Your task to perform on an android device: check data usage Image 0: 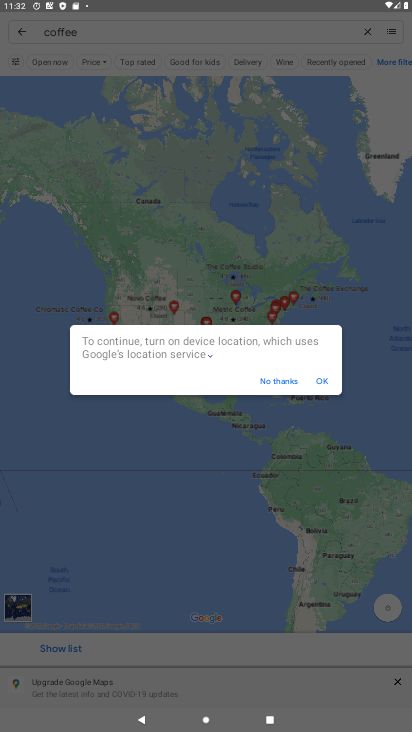
Step 0: press back button
Your task to perform on an android device: check data usage Image 1: 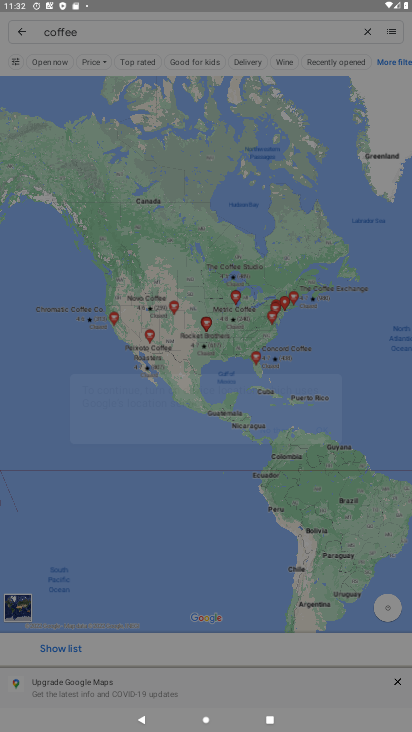
Step 1: press back button
Your task to perform on an android device: check data usage Image 2: 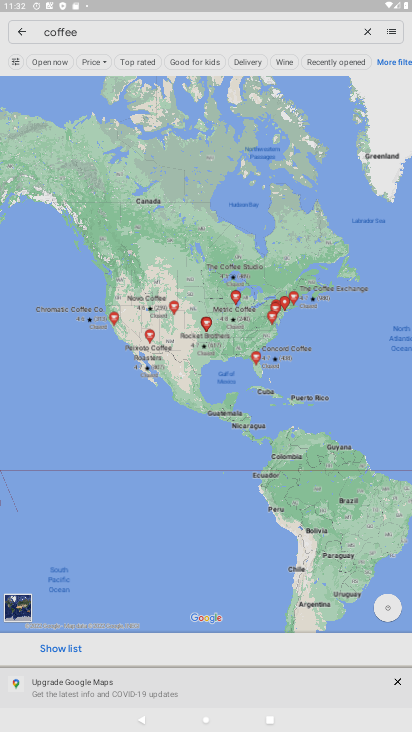
Step 2: click (277, 380)
Your task to perform on an android device: check data usage Image 3: 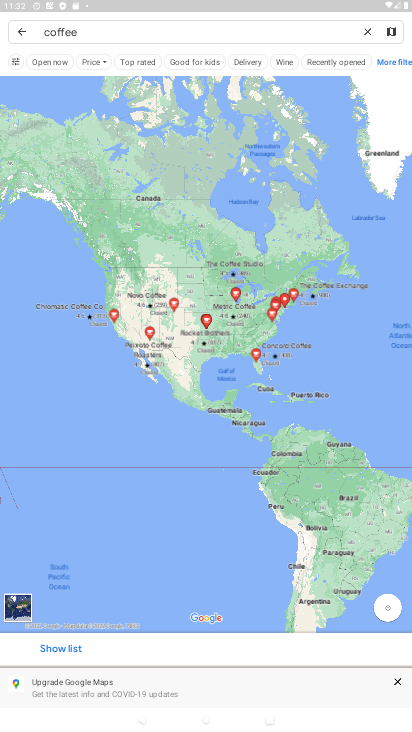
Step 3: click (278, 379)
Your task to perform on an android device: check data usage Image 4: 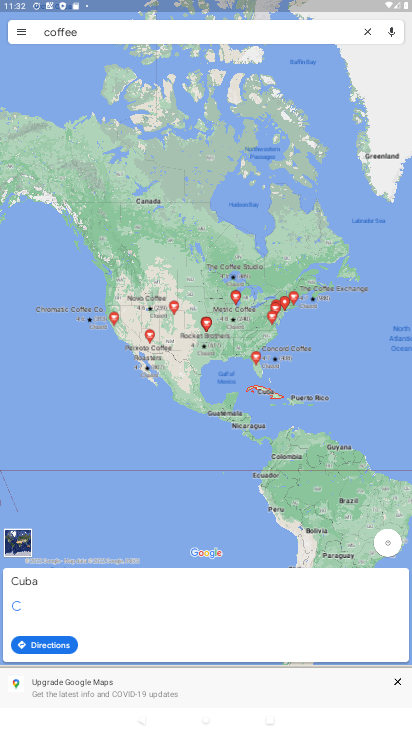
Step 4: press back button
Your task to perform on an android device: check data usage Image 5: 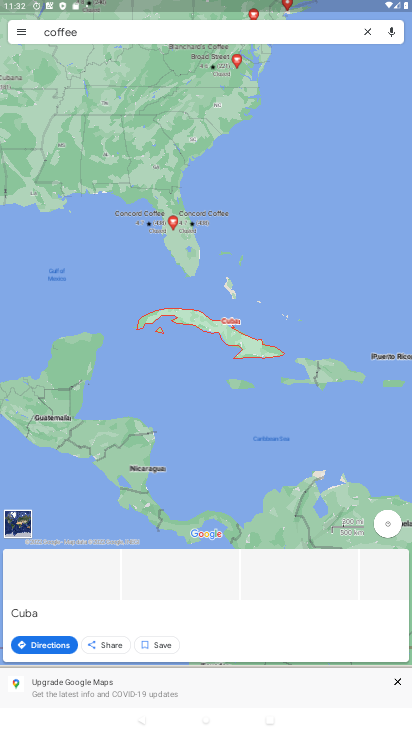
Step 5: press back button
Your task to perform on an android device: check data usage Image 6: 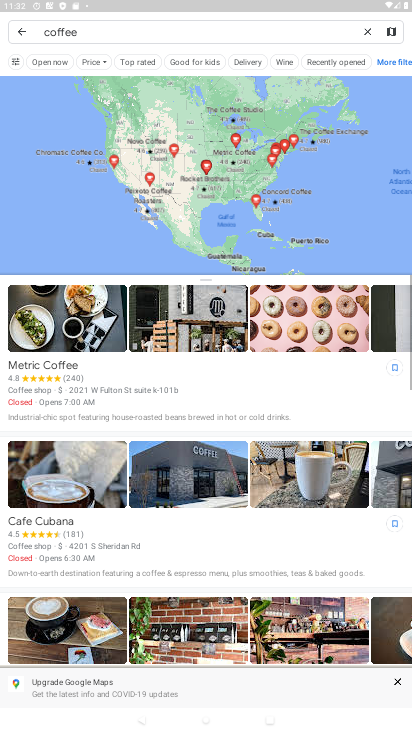
Step 6: click (19, 28)
Your task to perform on an android device: check data usage Image 7: 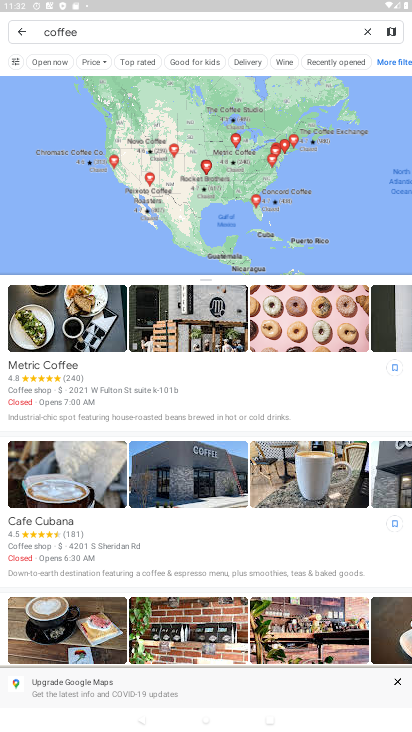
Step 7: click (22, 25)
Your task to perform on an android device: check data usage Image 8: 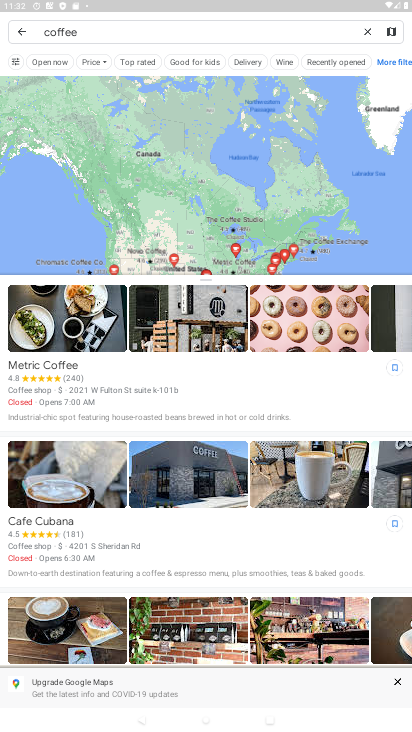
Step 8: click (27, 26)
Your task to perform on an android device: check data usage Image 9: 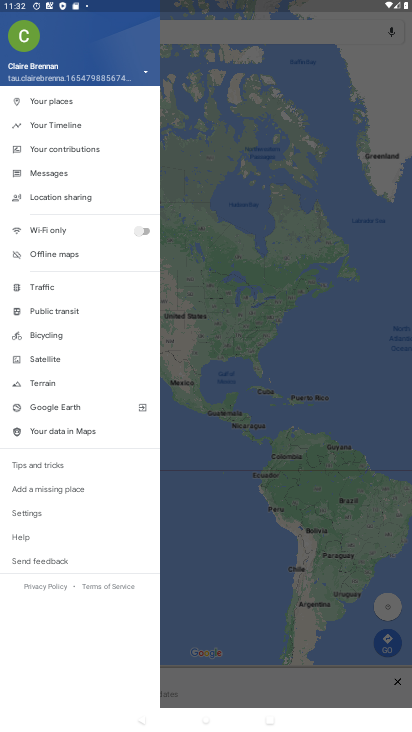
Step 9: click (272, 224)
Your task to perform on an android device: check data usage Image 10: 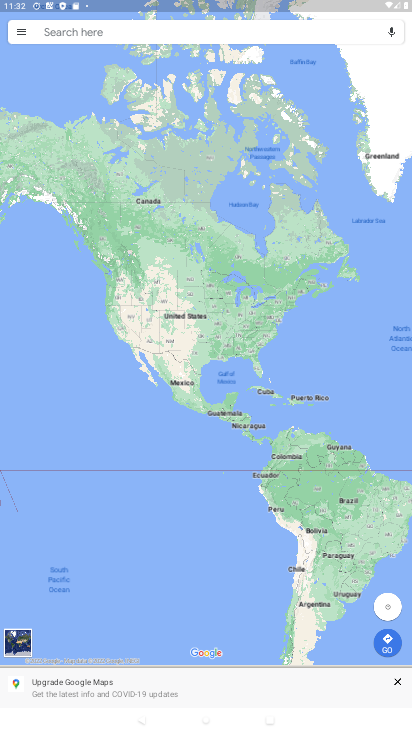
Step 10: press back button
Your task to perform on an android device: check data usage Image 11: 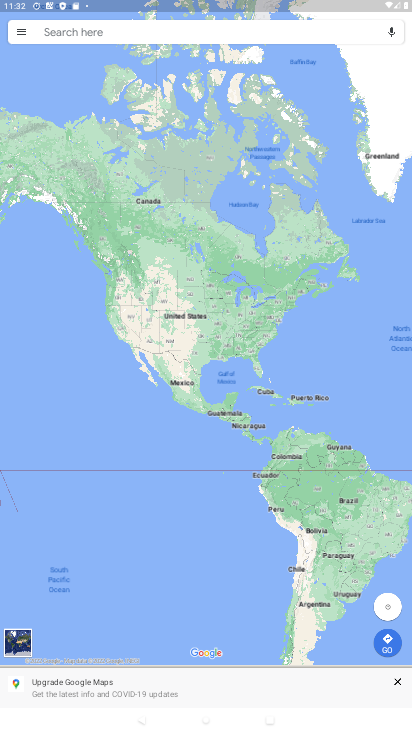
Step 11: press back button
Your task to perform on an android device: check data usage Image 12: 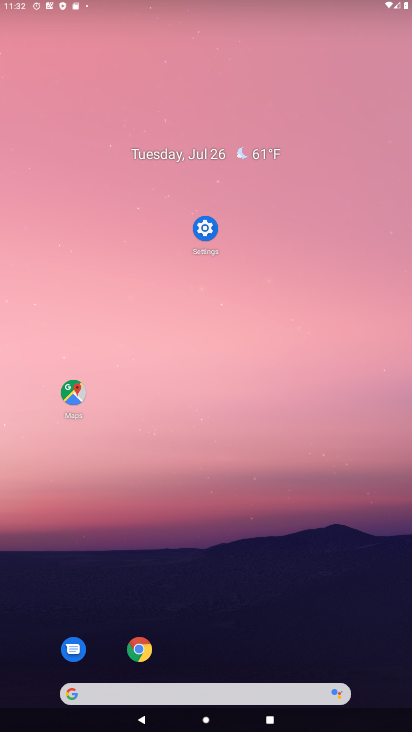
Step 12: drag from (219, 548) to (205, 22)
Your task to perform on an android device: check data usage Image 13: 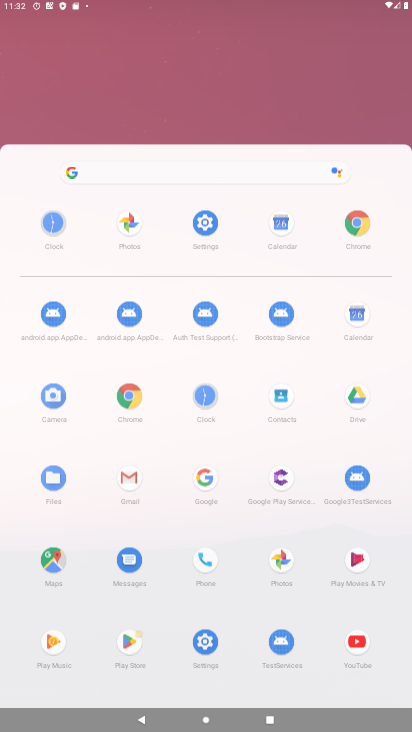
Step 13: drag from (270, 559) to (231, 138)
Your task to perform on an android device: check data usage Image 14: 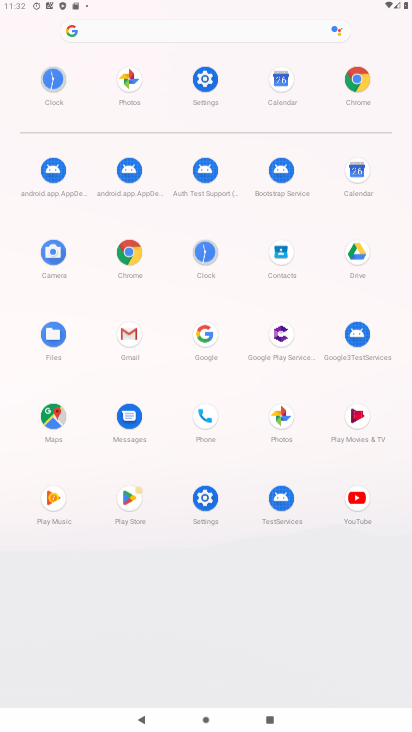
Step 14: drag from (263, 587) to (259, 228)
Your task to perform on an android device: check data usage Image 15: 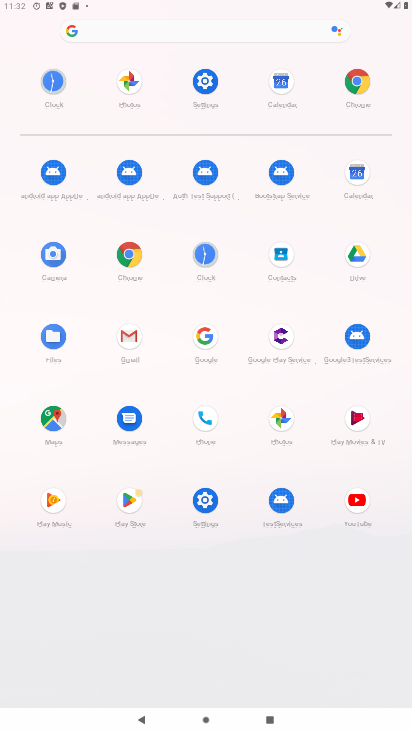
Step 15: click (208, 80)
Your task to perform on an android device: check data usage Image 16: 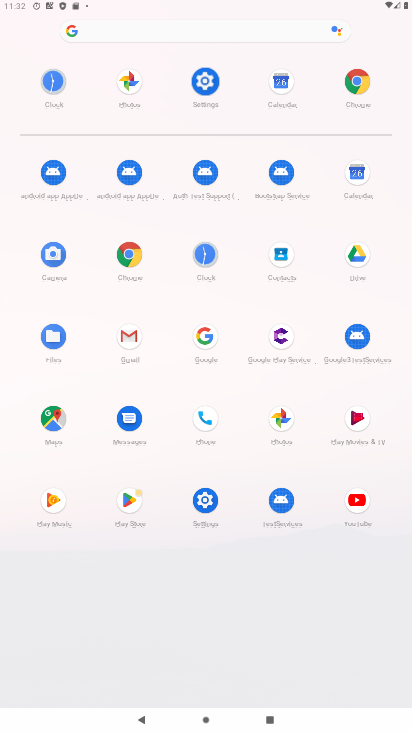
Step 16: click (211, 84)
Your task to perform on an android device: check data usage Image 17: 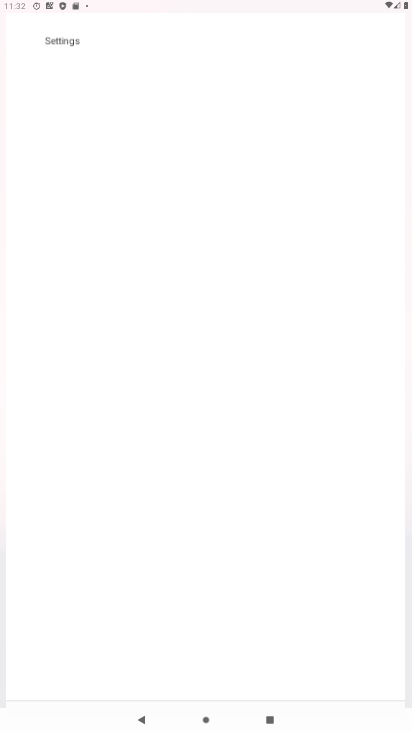
Step 17: click (214, 90)
Your task to perform on an android device: check data usage Image 18: 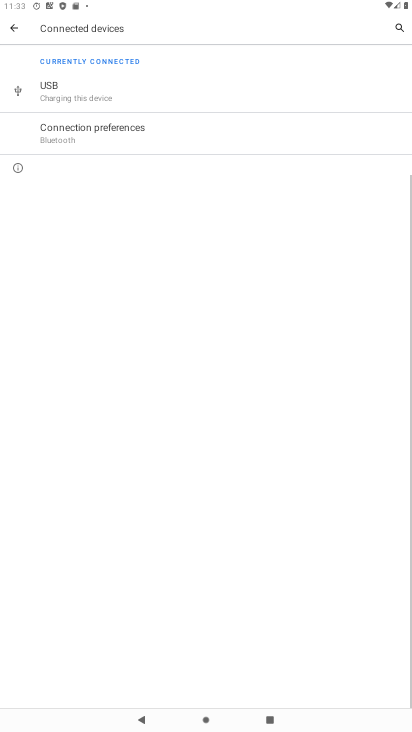
Step 18: click (9, 28)
Your task to perform on an android device: check data usage Image 19: 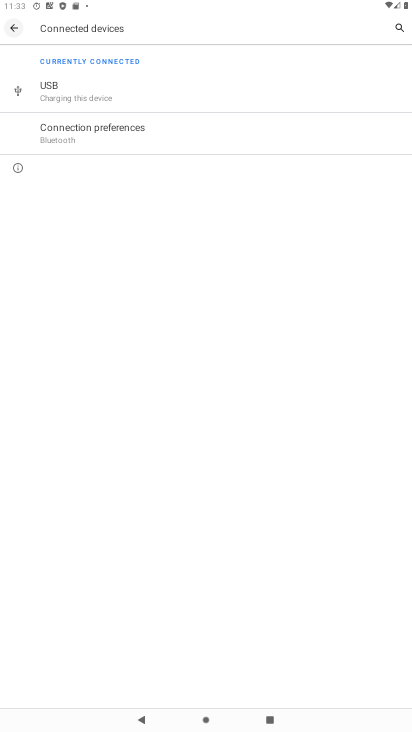
Step 19: click (11, 26)
Your task to perform on an android device: check data usage Image 20: 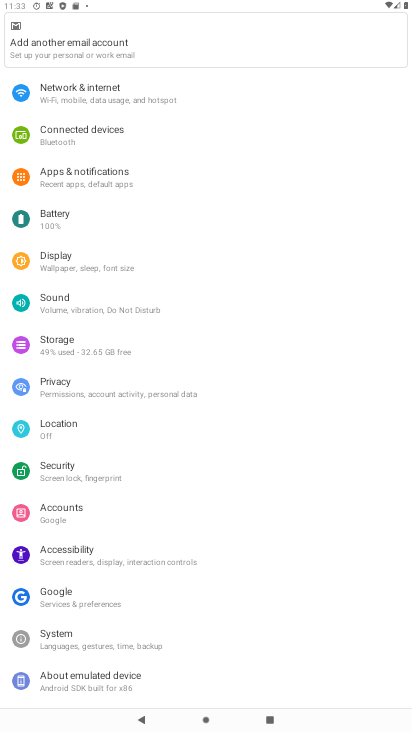
Step 20: click (83, 95)
Your task to perform on an android device: check data usage Image 21: 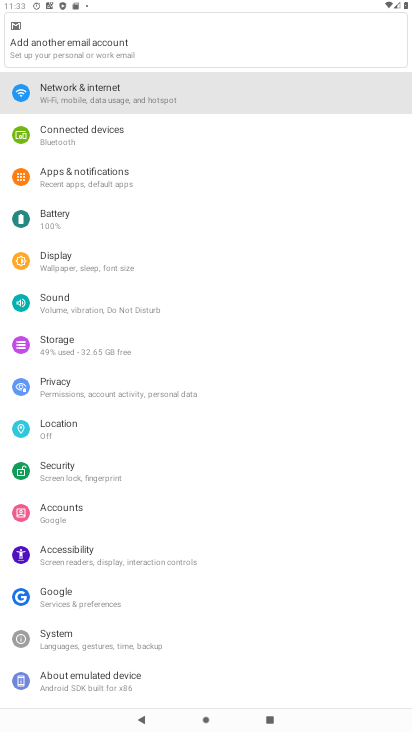
Step 21: click (82, 93)
Your task to perform on an android device: check data usage Image 22: 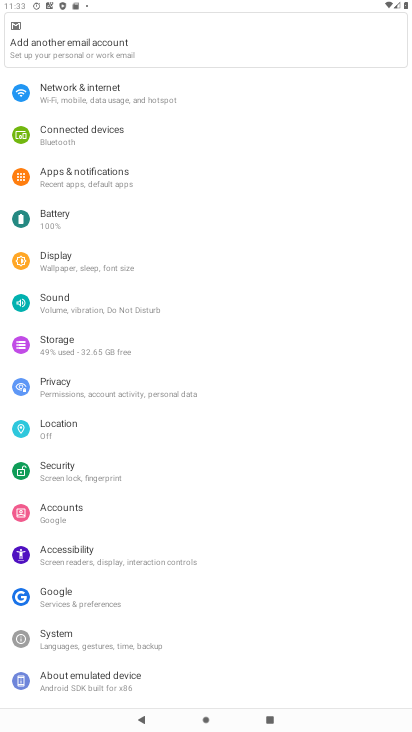
Step 22: click (81, 92)
Your task to perform on an android device: check data usage Image 23: 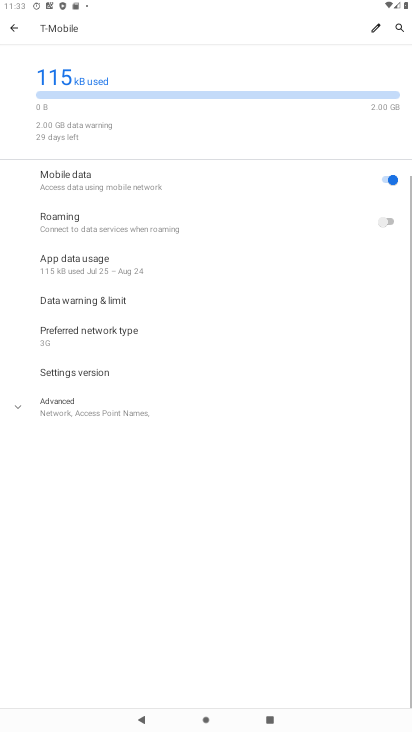
Step 23: task complete